Your task to perform on an android device: Check the settings for the Google Play Music app Image 0: 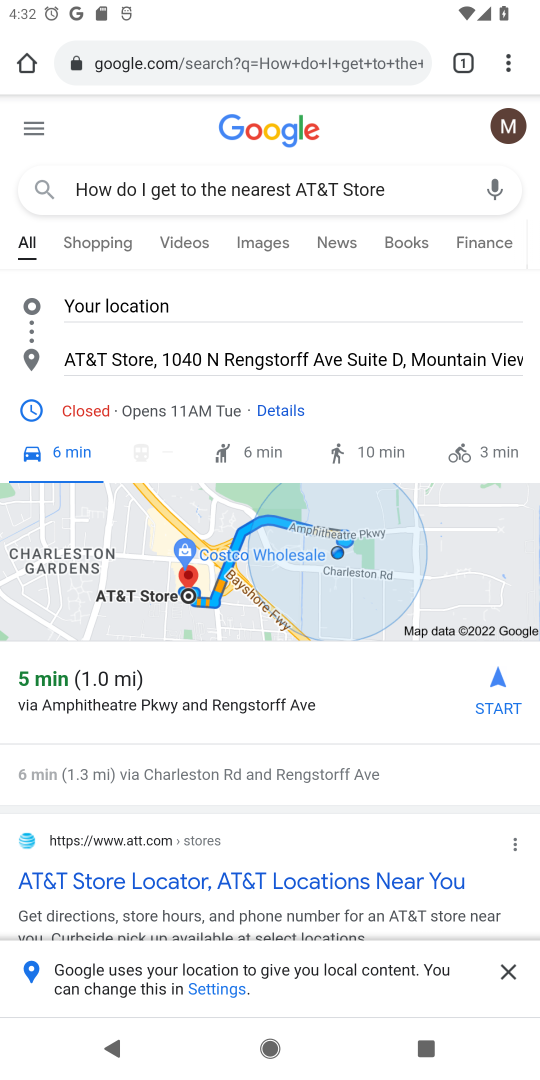
Step 0: press home button
Your task to perform on an android device: Check the settings for the Google Play Music app Image 1: 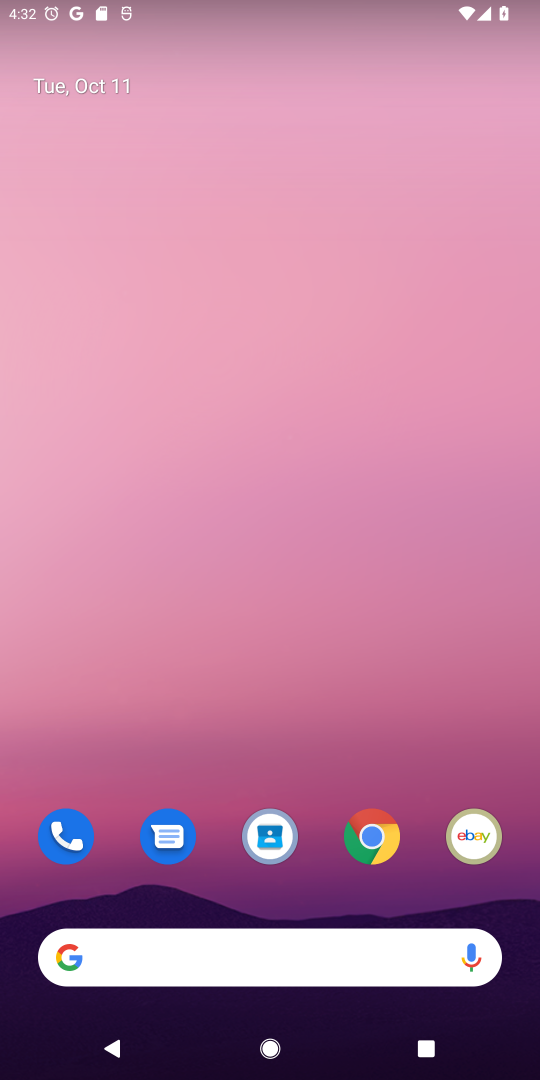
Step 1: drag from (216, 906) to (197, 29)
Your task to perform on an android device: Check the settings for the Google Play Music app Image 2: 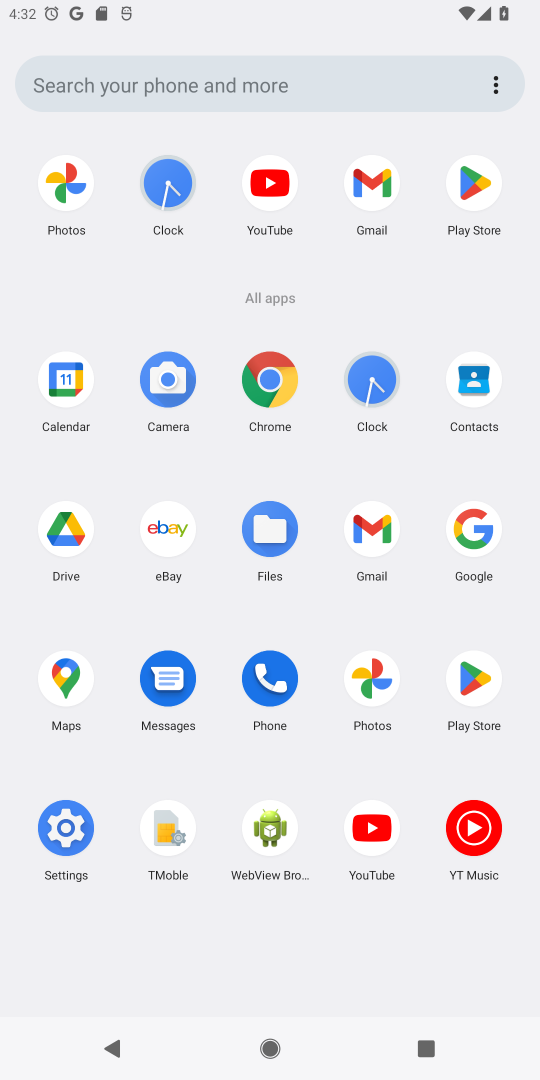
Step 2: click (463, 854)
Your task to perform on an android device: Check the settings for the Google Play Music app Image 3: 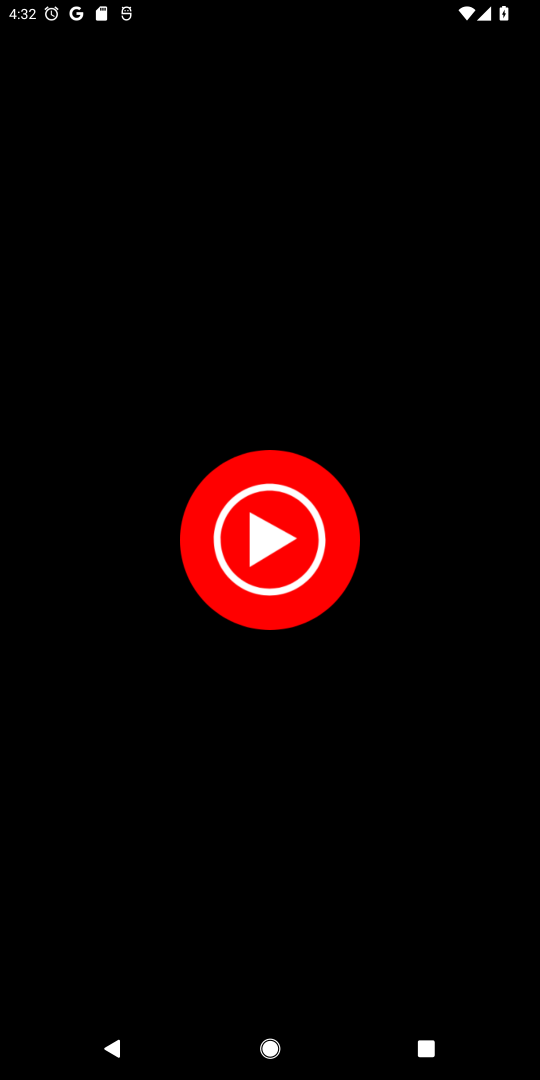
Step 3: task complete